Your task to perform on an android device: delete location history Image 0: 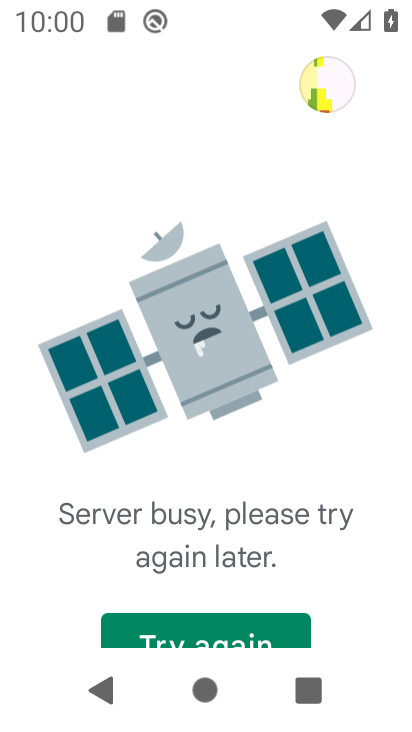
Step 0: press home button
Your task to perform on an android device: delete location history Image 1: 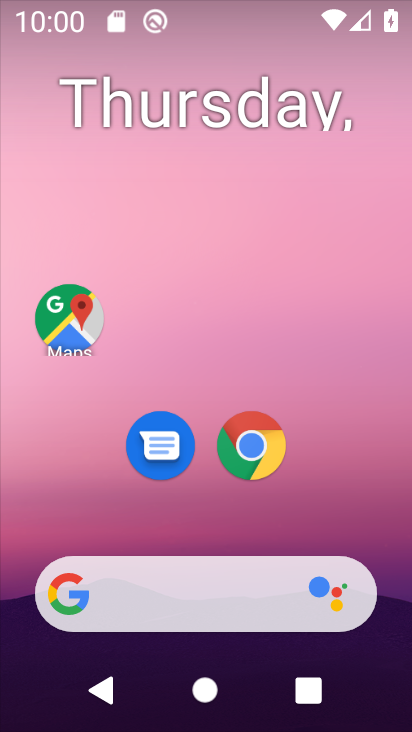
Step 1: drag from (367, 541) to (200, 49)
Your task to perform on an android device: delete location history Image 2: 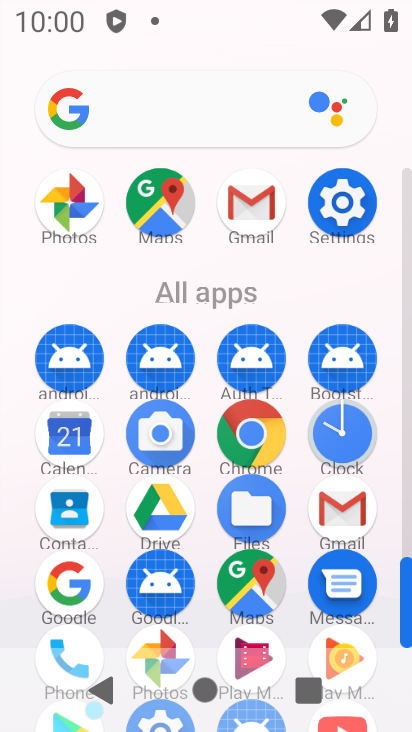
Step 2: click (328, 226)
Your task to perform on an android device: delete location history Image 3: 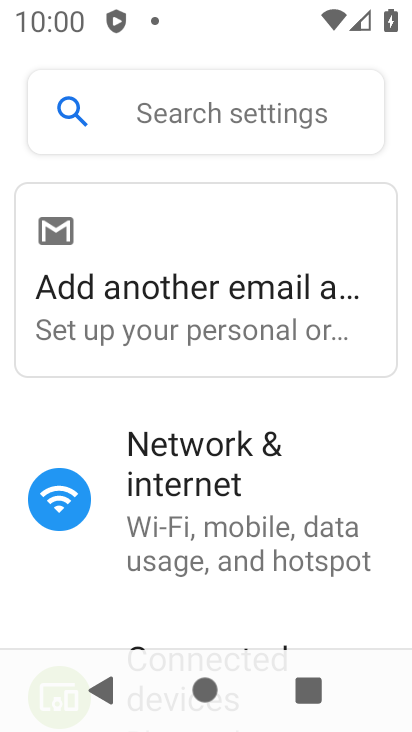
Step 3: drag from (126, 555) to (115, 97)
Your task to perform on an android device: delete location history Image 4: 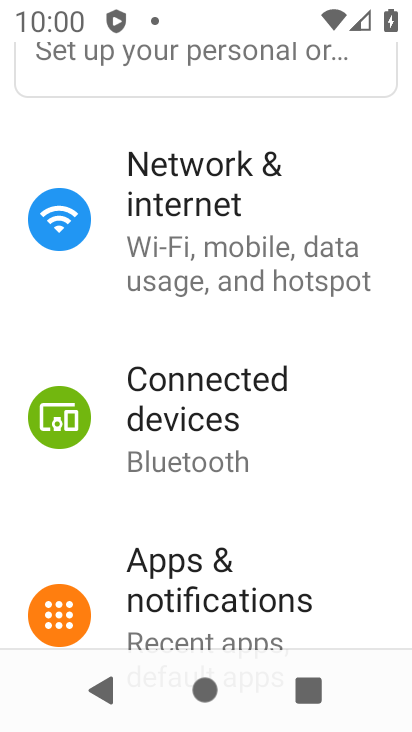
Step 4: drag from (173, 565) to (212, 258)
Your task to perform on an android device: delete location history Image 5: 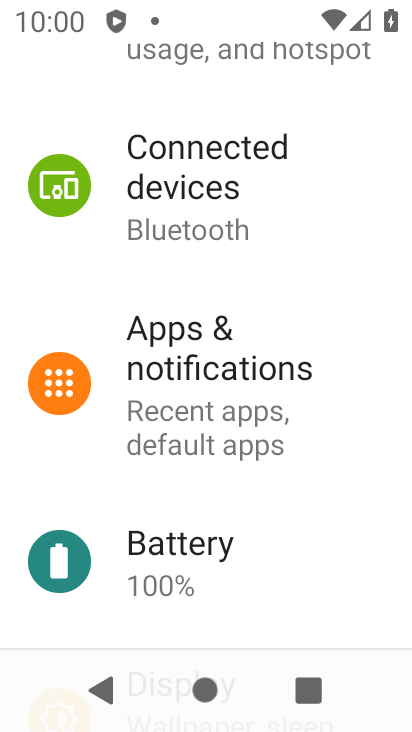
Step 5: drag from (165, 584) to (209, 158)
Your task to perform on an android device: delete location history Image 6: 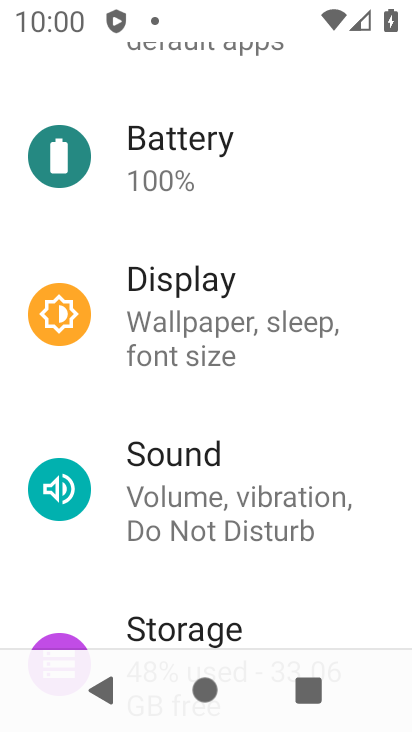
Step 6: drag from (207, 575) to (262, 159)
Your task to perform on an android device: delete location history Image 7: 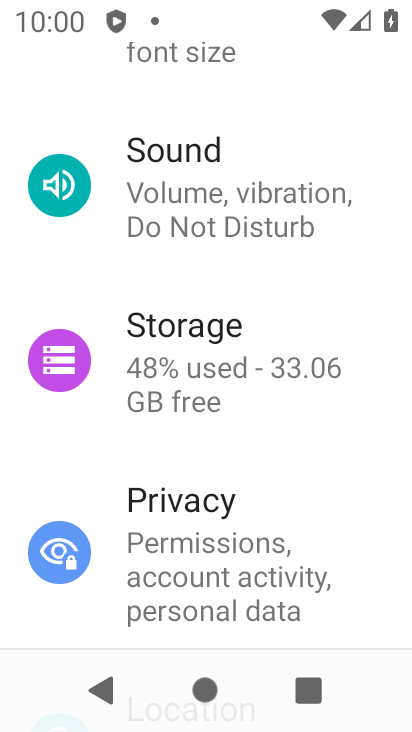
Step 7: drag from (228, 565) to (293, 125)
Your task to perform on an android device: delete location history Image 8: 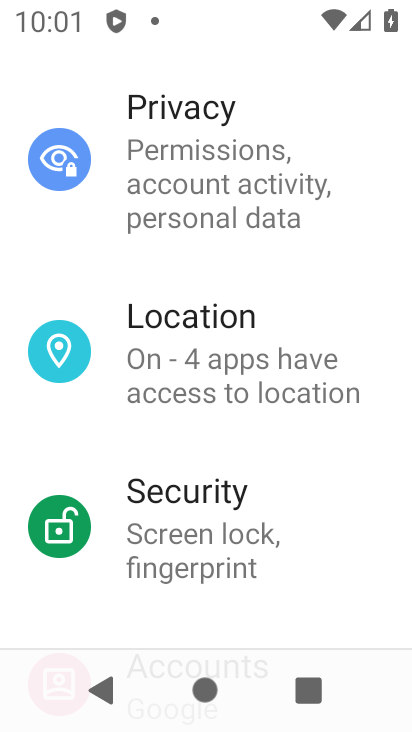
Step 8: click (199, 314)
Your task to perform on an android device: delete location history Image 9: 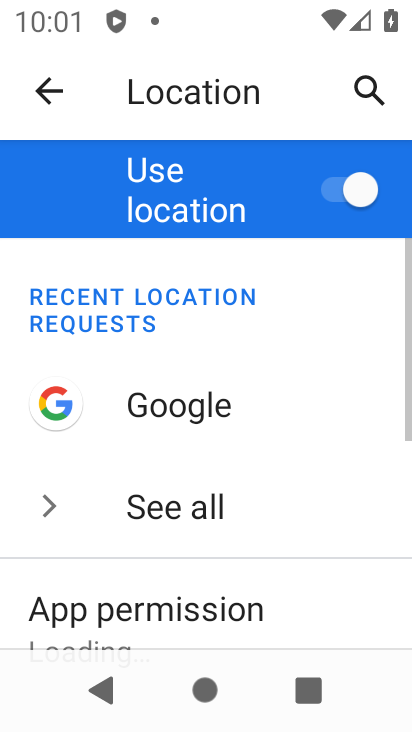
Step 9: drag from (216, 589) to (257, 65)
Your task to perform on an android device: delete location history Image 10: 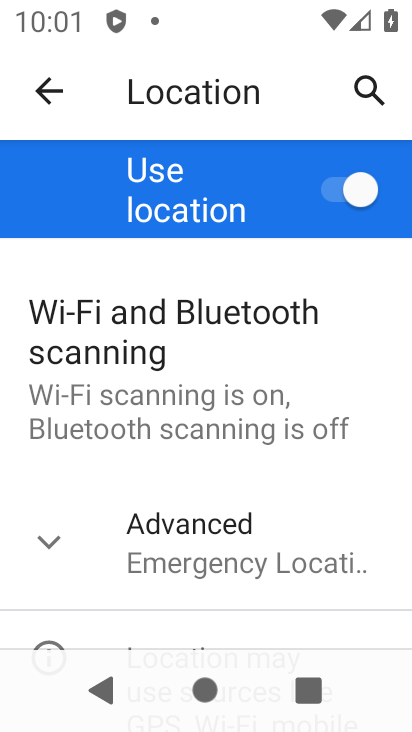
Step 10: click (33, 545)
Your task to perform on an android device: delete location history Image 11: 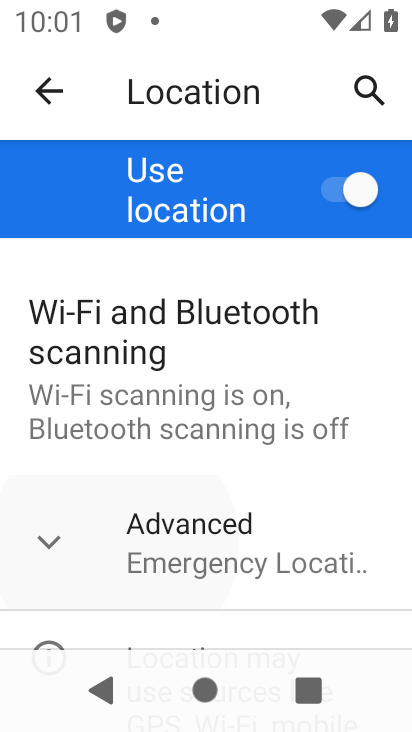
Step 11: drag from (126, 517) to (169, 135)
Your task to perform on an android device: delete location history Image 12: 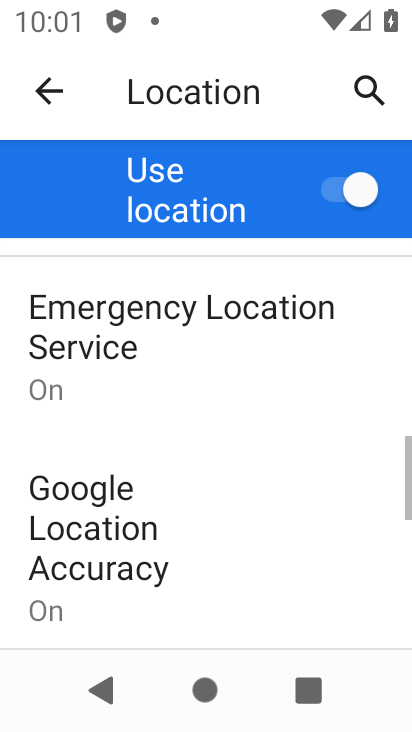
Step 12: drag from (213, 515) to (240, 175)
Your task to perform on an android device: delete location history Image 13: 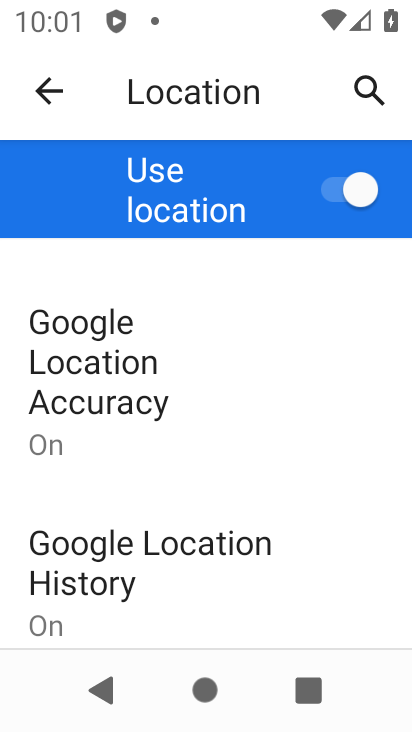
Step 13: click (230, 559)
Your task to perform on an android device: delete location history Image 14: 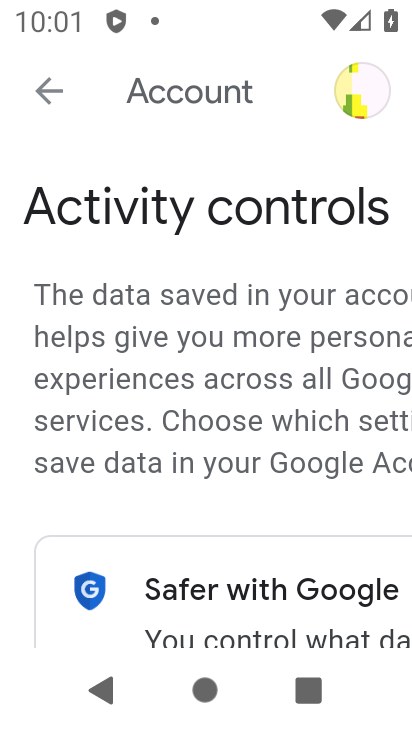
Step 14: drag from (338, 591) to (125, 110)
Your task to perform on an android device: delete location history Image 15: 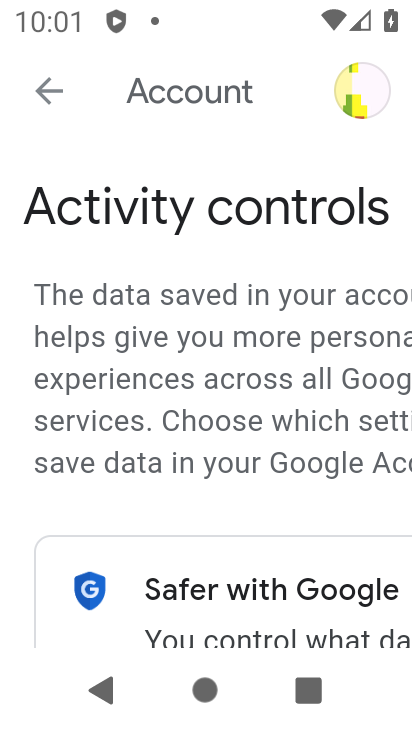
Step 15: drag from (255, 564) to (107, 93)
Your task to perform on an android device: delete location history Image 16: 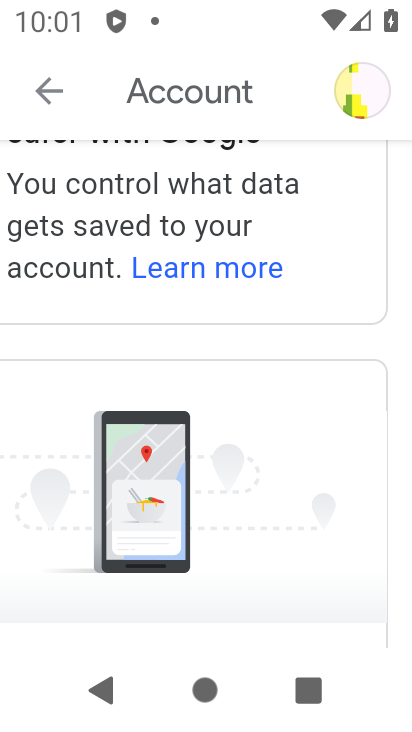
Step 16: drag from (228, 431) to (191, 94)
Your task to perform on an android device: delete location history Image 17: 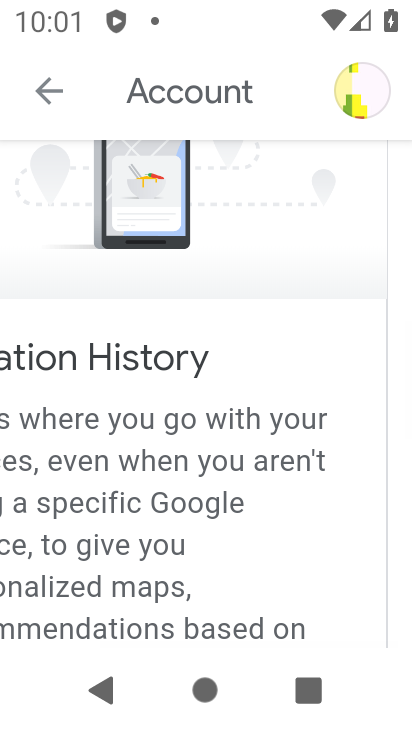
Step 17: drag from (162, 501) to (222, 57)
Your task to perform on an android device: delete location history Image 18: 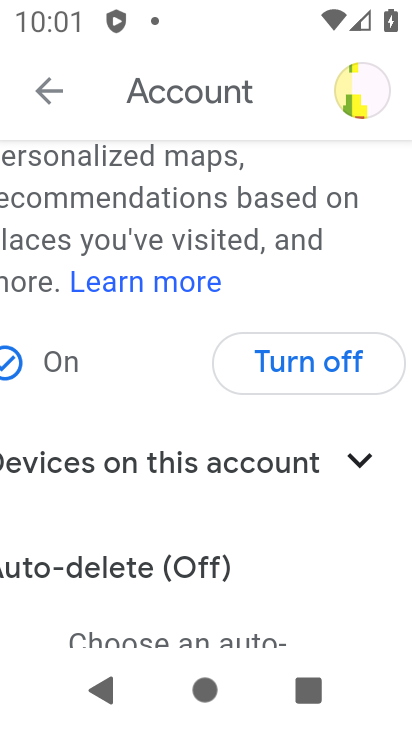
Step 18: drag from (269, 549) to (281, 325)
Your task to perform on an android device: delete location history Image 19: 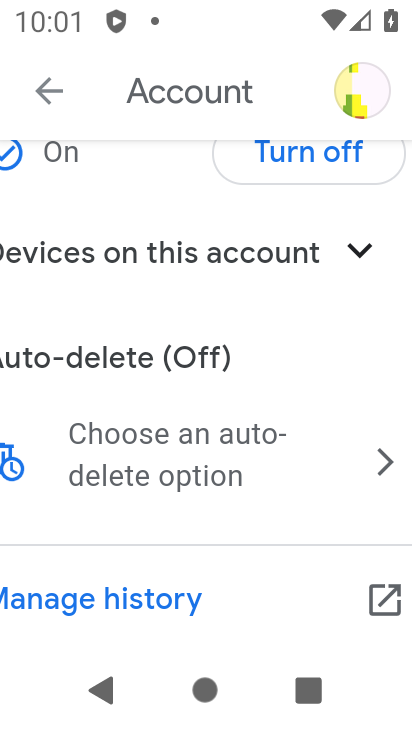
Step 19: click (284, 478)
Your task to perform on an android device: delete location history Image 20: 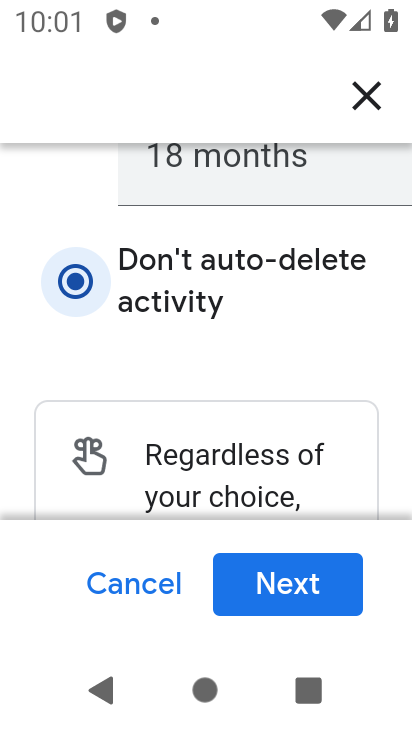
Step 20: click (298, 579)
Your task to perform on an android device: delete location history Image 21: 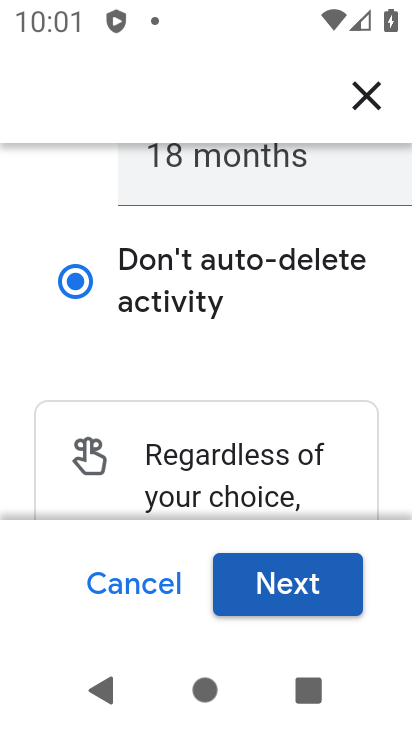
Step 21: click (279, 578)
Your task to perform on an android device: delete location history Image 22: 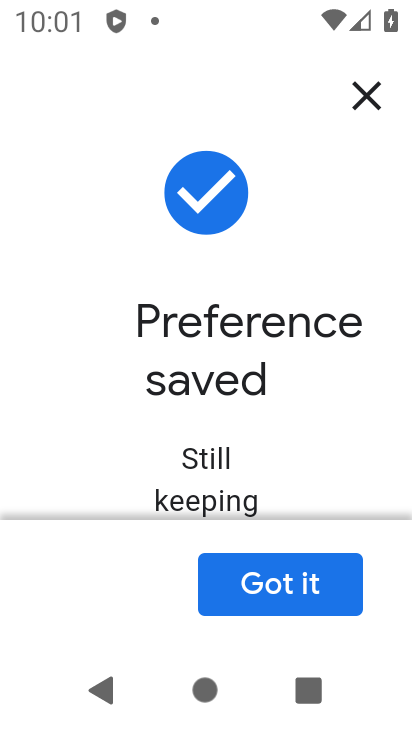
Step 22: click (279, 578)
Your task to perform on an android device: delete location history Image 23: 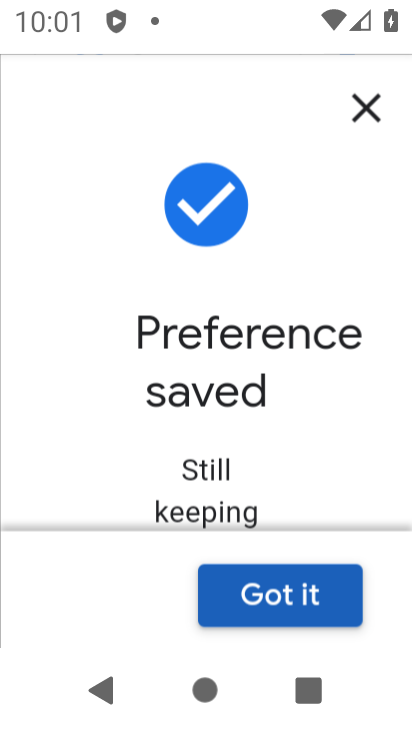
Step 23: task complete